Your task to perform on an android device: manage bookmarks in the chrome app Image 0: 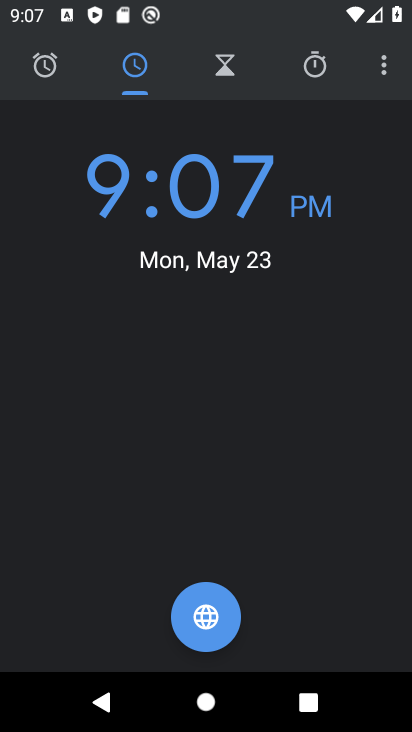
Step 0: press back button
Your task to perform on an android device: manage bookmarks in the chrome app Image 1: 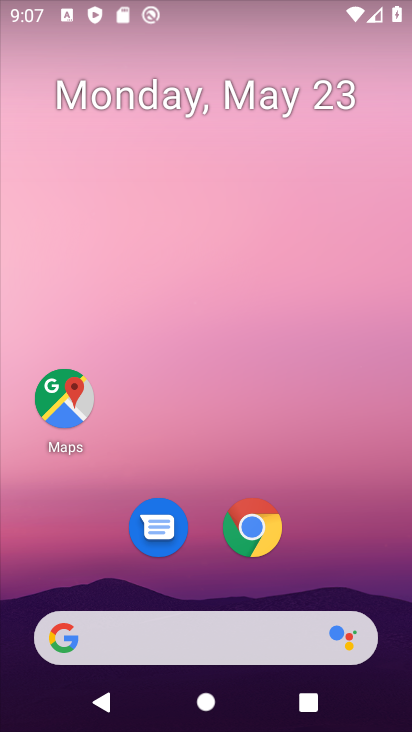
Step 1: drag from (338, 561) to (256, 15)
Your task to perform on an android device: manage bookmarks in the chrome app Image 2: 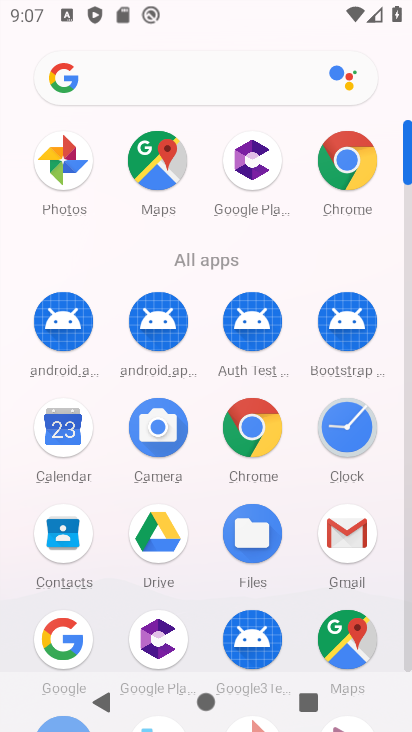
Step 2: drag from (22, 569) to (12, 226)
Your task to perform on an android device: manage bookmarks in the chrome app Image 3: 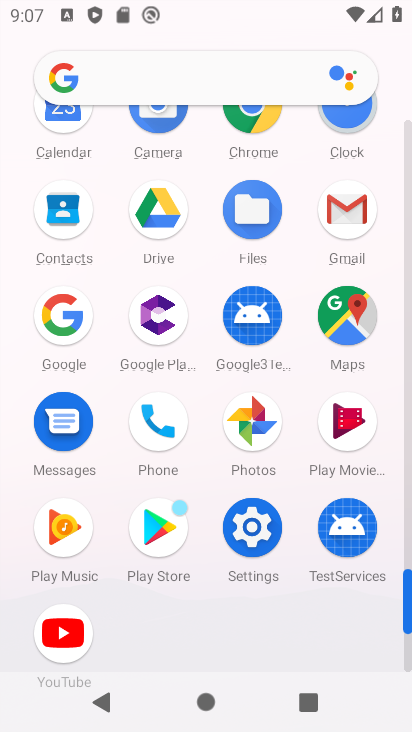
Step 3: drag from (16, 225) to (16, 447)
Your task to perform on an android device: manage bookmarks in the chrome app Image 4: 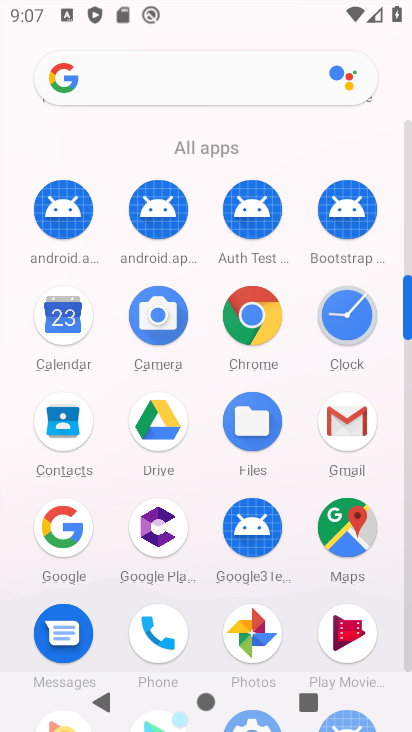
Step 4: click (252, 316)
Your task to perform on an android device: manage bookmarks in the chrome app Image 5: 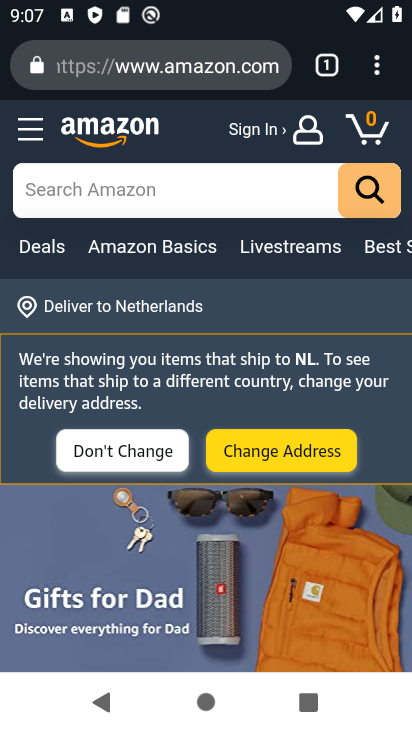
Step 5: click (203, 50)
Your task to perform on an android device: manage bookmarks in the chrome app Image 6: 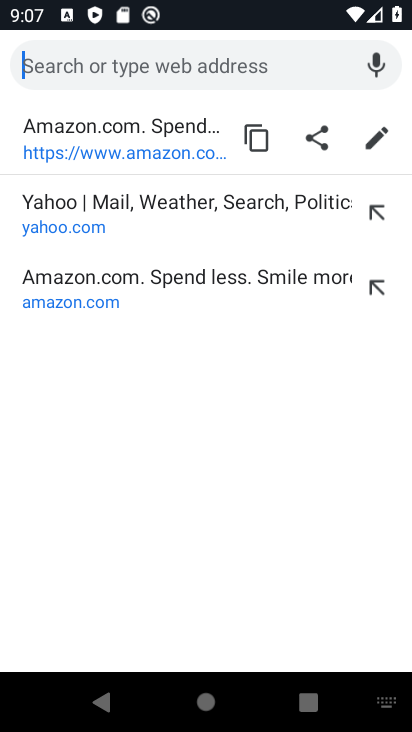
Step 6: press back button
Your task to perform on an android device: manage bookmarks in the chrome app Image 7: 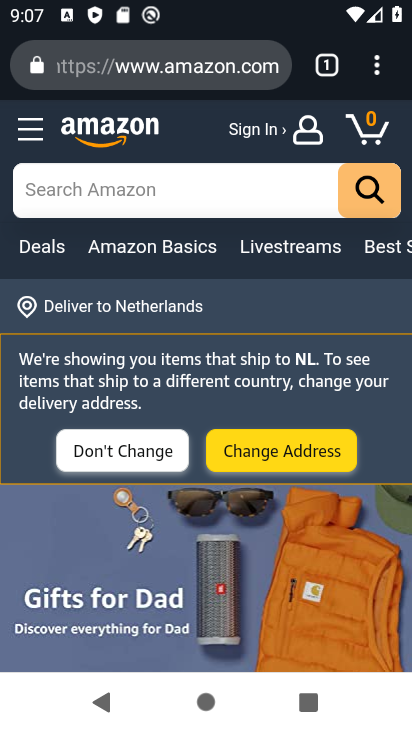
Step 7: drag from (376, 65) to (234, 229)
Your task to perform on an android device: manage bookmarks in the chrome app Image 8: 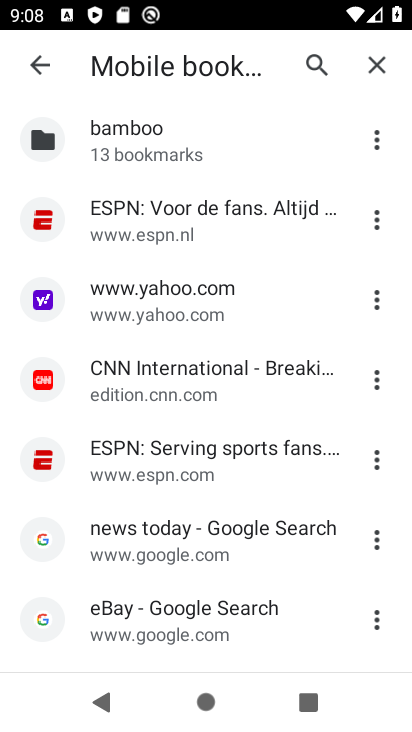
Step 8: click (378, 143)
Your task to perform on an android device: manage bookmarks in the chrome app Image 9: 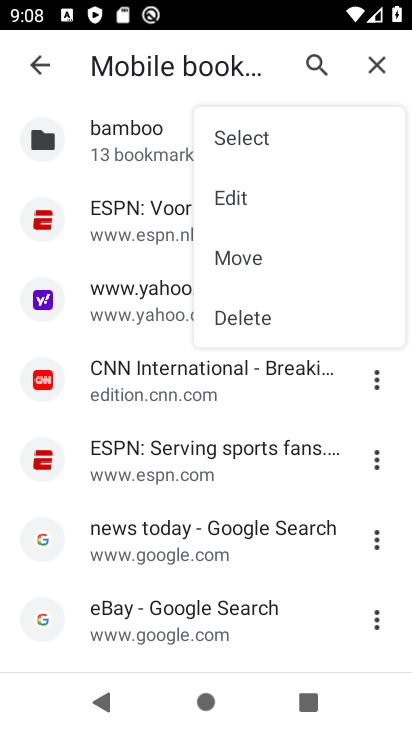
Step 9: click (217, 310)
Your task to perform on an android device: manage bookmarks in the chrome app Image 10: 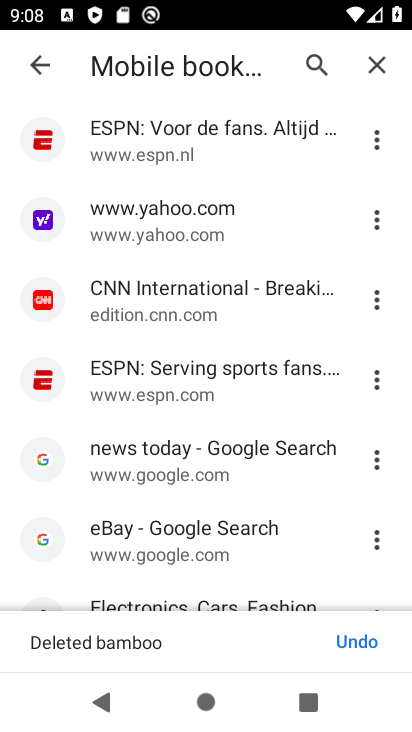
Step 10: drag from (261, 553) to (286, 228)
Your task to perform on an android device: manage bookmarks in the chrome app Image 11: 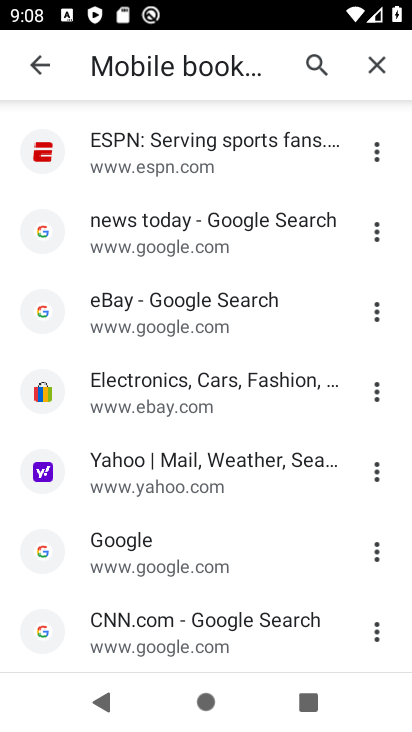
Step 11: click (372, 313)
Your task to perform on an android device: manage bookmarks in the chrome app Image 12: 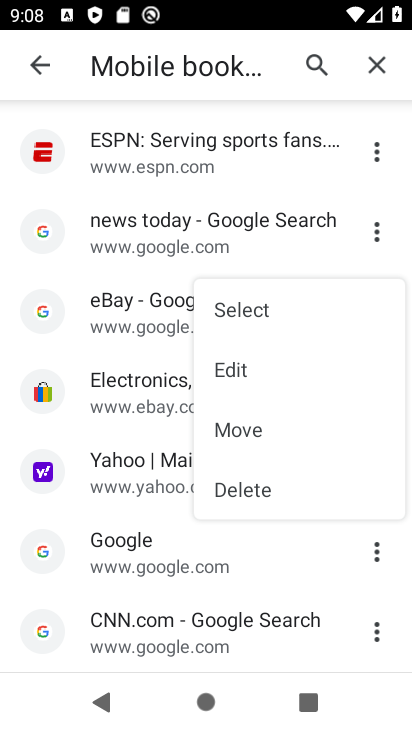
Step 12: click (288, 488)
Your task to perform on an android device: manage bookmarks in the chrome app Image 13: 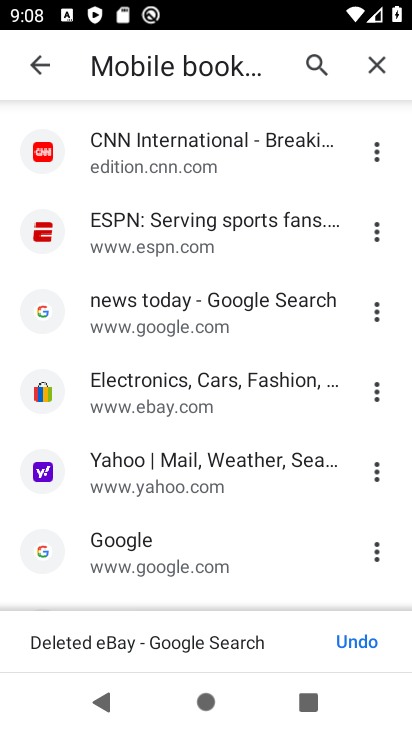
Step 13: task complete